Your task to perform on an android device: What's the weather going to be this weekend? Image 0: 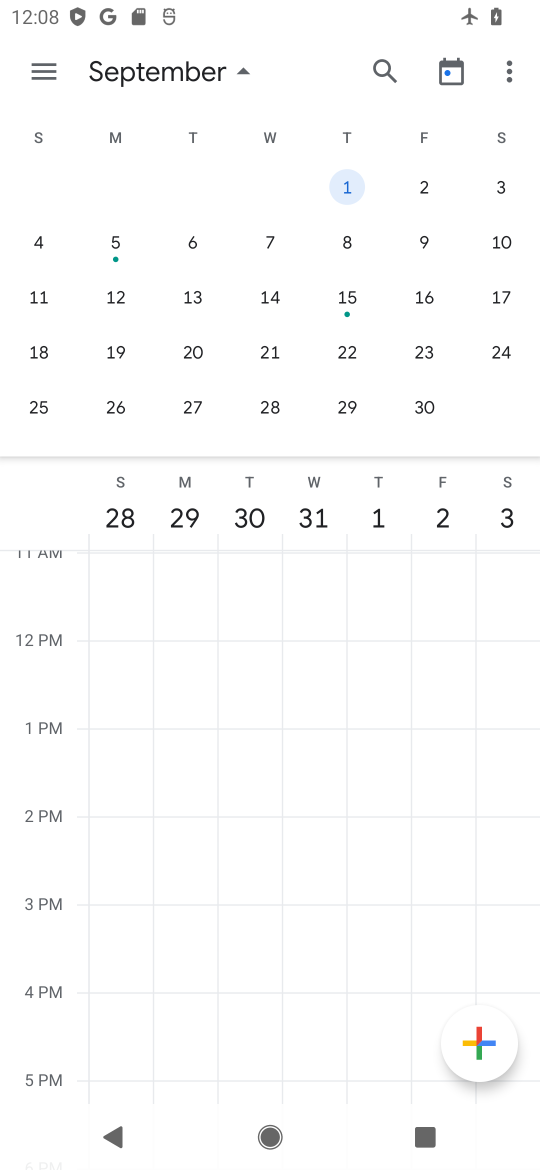
Step 0: press home button
Your task to perform on an android device: What's the weather going to be this weekend? Image 1: 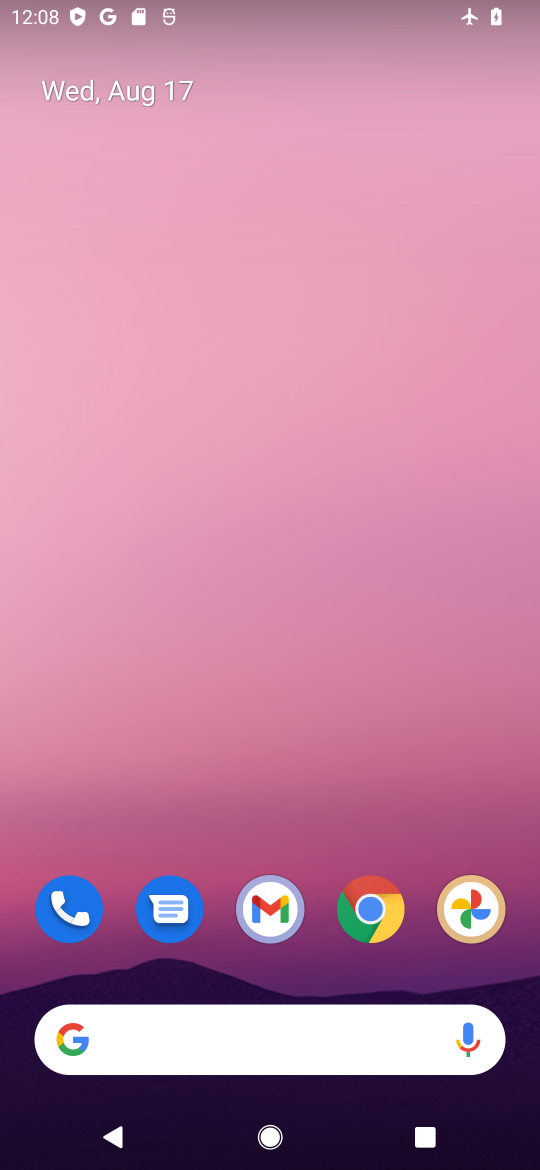
Step 1: click (98, 1028)
Your task to perform on an android device: What's the weather going to be this weekend? Image 2: 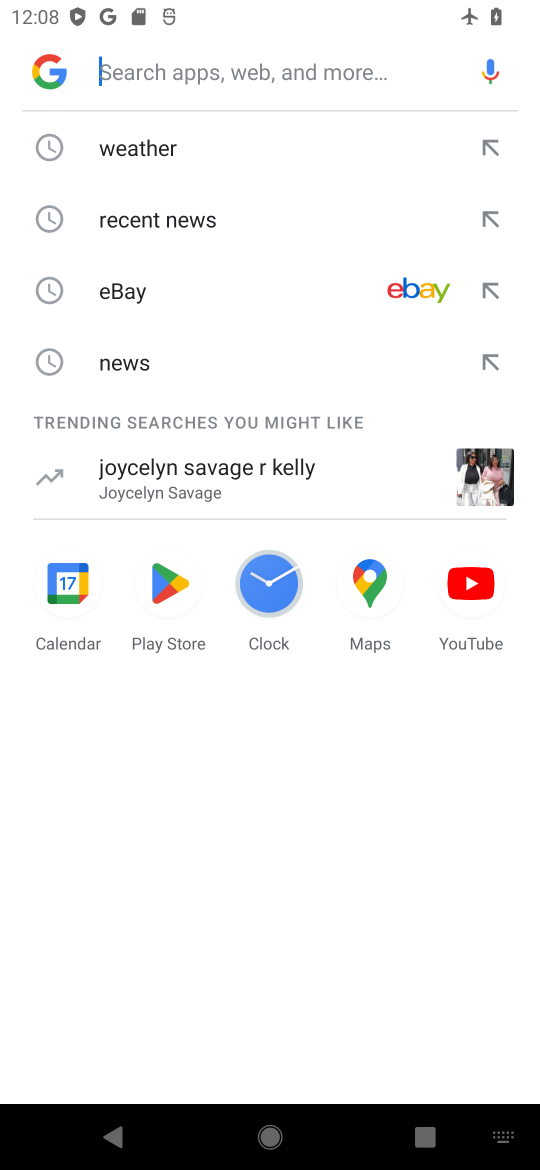
Step 2: click (111, 138)
Your task to perform on an android device: What's the weather going to be this weekend? Image 3: 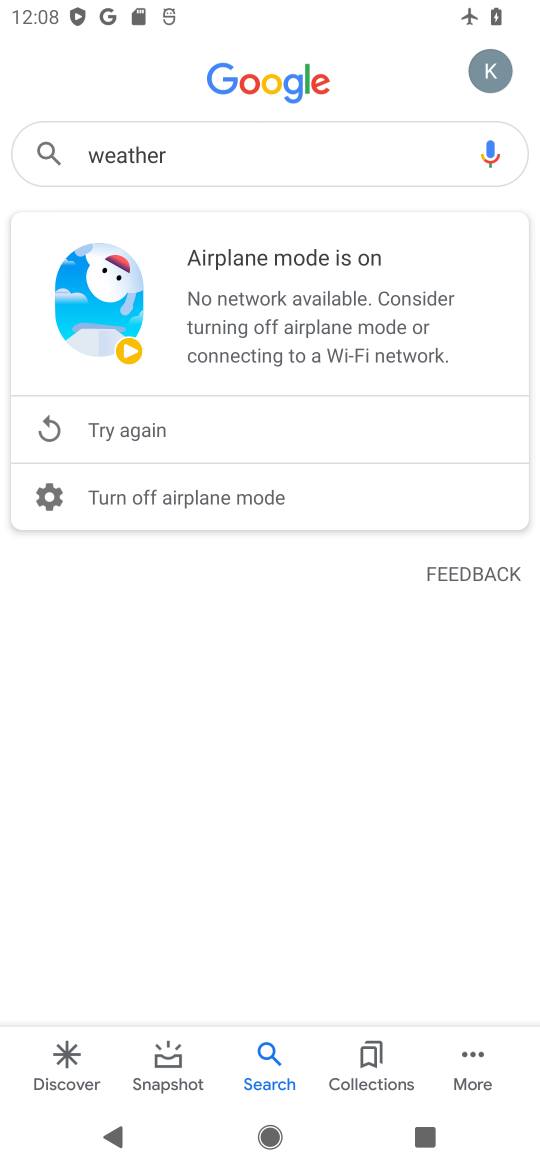
Step 3: task complete